Your task to perform on an android device: What is the recent news? Image 0: 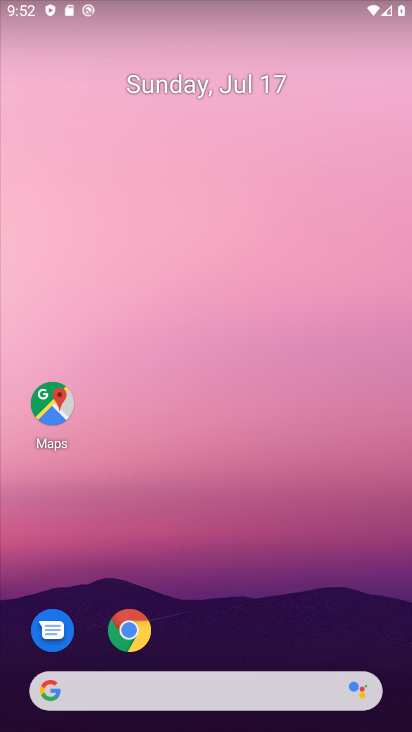
Step 0: drag from (0, 249) to (392, 252)
Your task to perform on an android device: What is the recent news? Image 1: 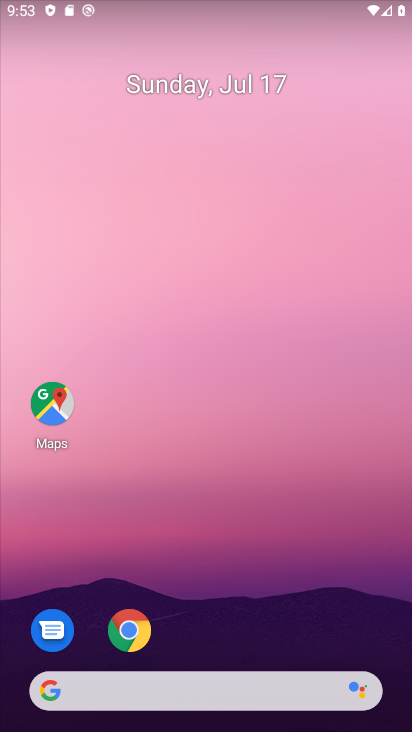
Step 1: task complete